Your task to perform on an android device: open chrome and create a bookmark for the current page Image 0: 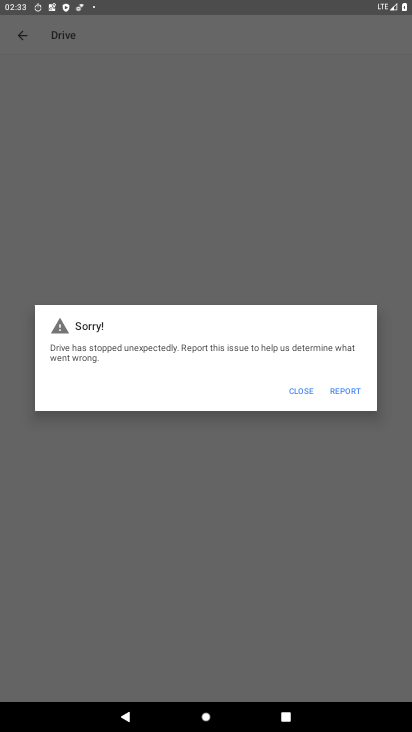
Step 0: press home button
Your task to perform on an android device: open chrome and create a bookmark for the current page Image 1: 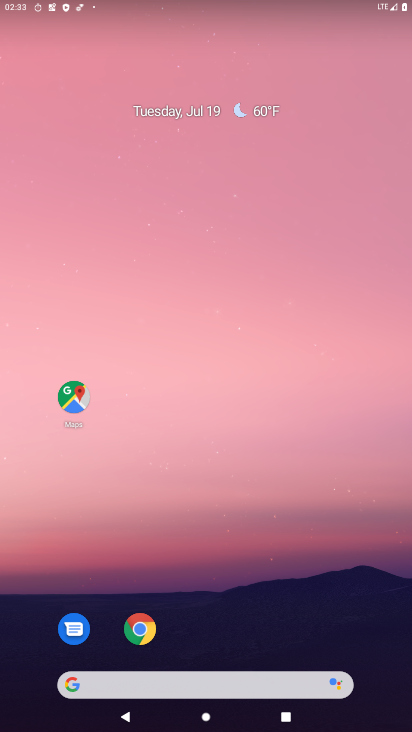
Step 1: click (147, 633)
Your task to perform on an android device: open chrome and create a bookmark for the current page Image 2: 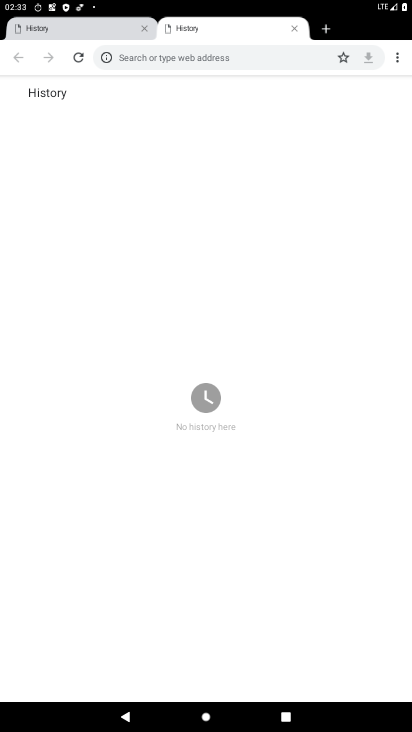
Step 2: click (393, 58)
Your task to perform on an android device: open chrome and create a bookmark for the current page Image 3: 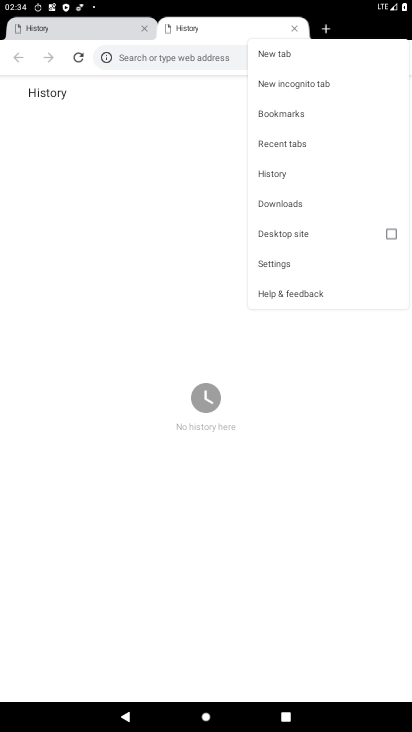
Step 3: click (110, 121)
Your task to perform on an android device: open chrome and create a bookmark for the current page Image 4: 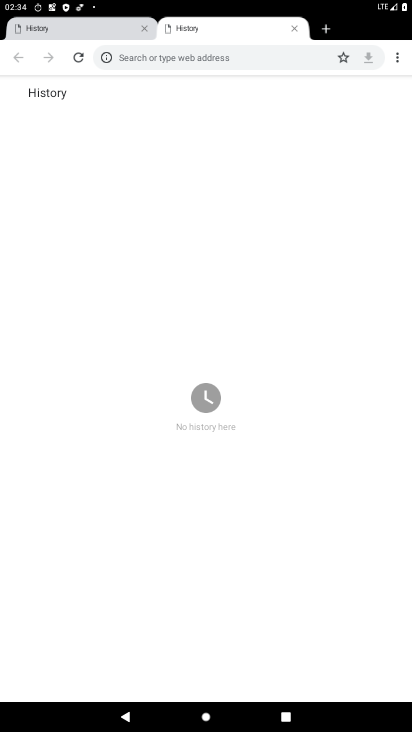
Step 4: click (349, 56)
Your task to perform on an android device: open chrome and create a bookmark for the current page Image 5: 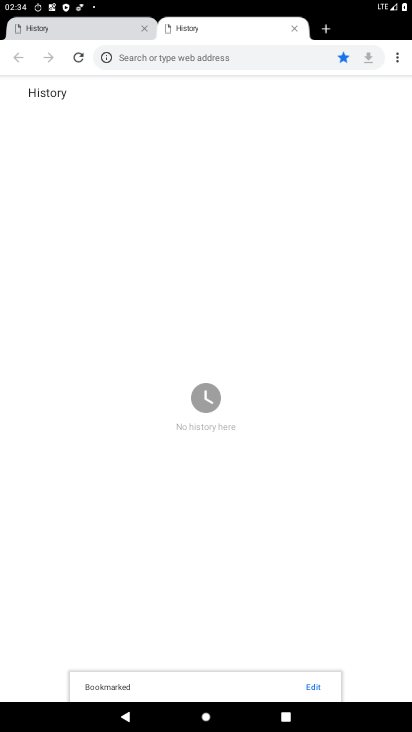
Step 5: task complete